Your task to perform on an android device: Toggle the flashlight Image 0: 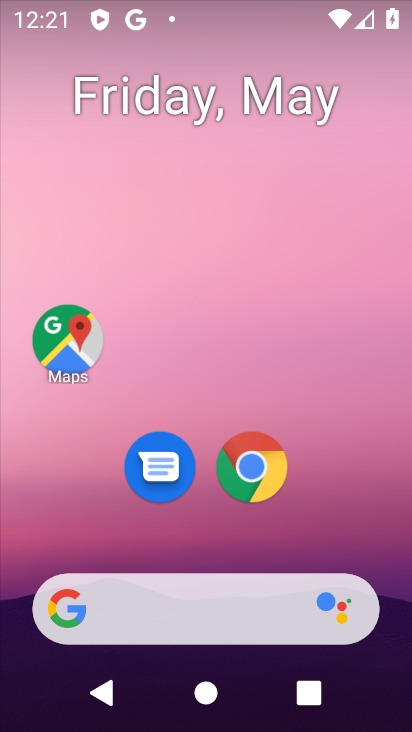
Step 0: drag from (340, 518) to (293, 128)
Your task to perform on an android device: Toggle the flashlight Image 1: 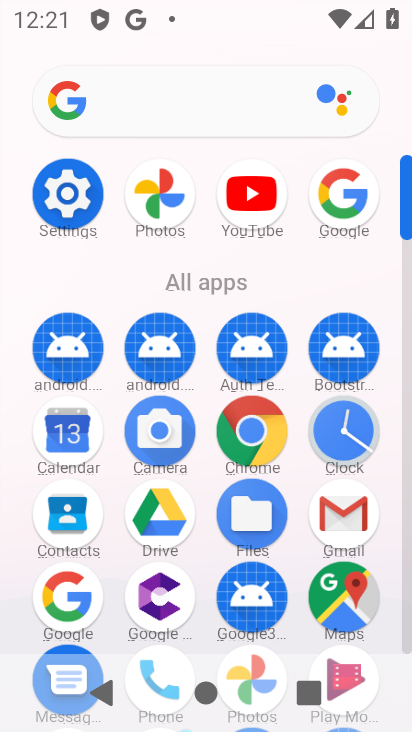
Step 1: click (69, 193)
Your task to perform on an android device: Toggle the flashlight Image 2: 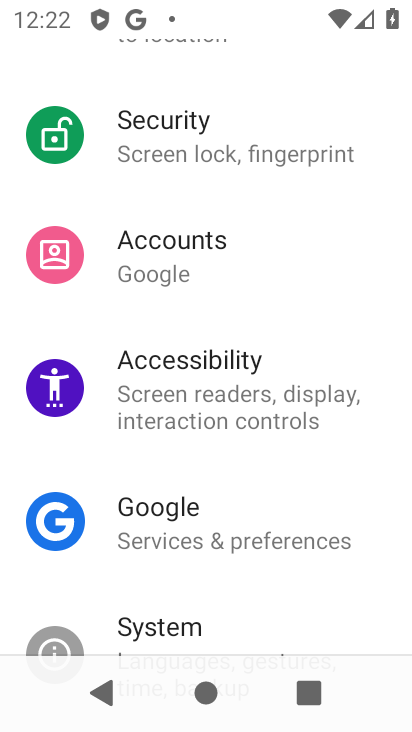
Step 2: drag from (259, 209) to (266, 397)
Your task to perform on an android device: Toggle the flashlight Image 3: 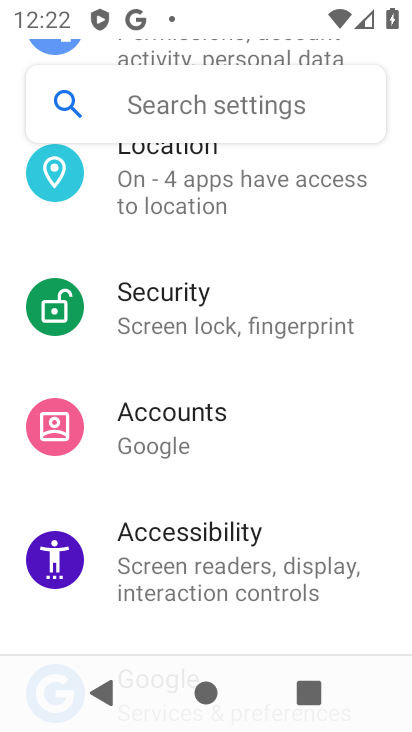
Step 3: drag from (232, 260) to (236, 442)
Your task to perform on an android device: Toggle the flashlight Image 4: 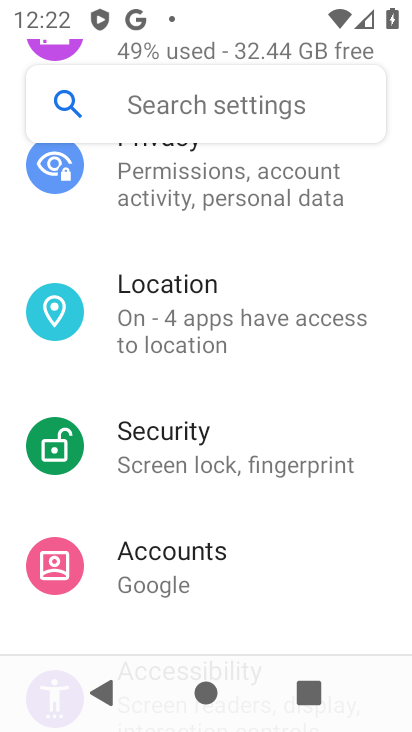
Step 4: drag from (211, 253) to (269, 408)
Your task to perform on an android device: Toggle the flashlight Image 5: 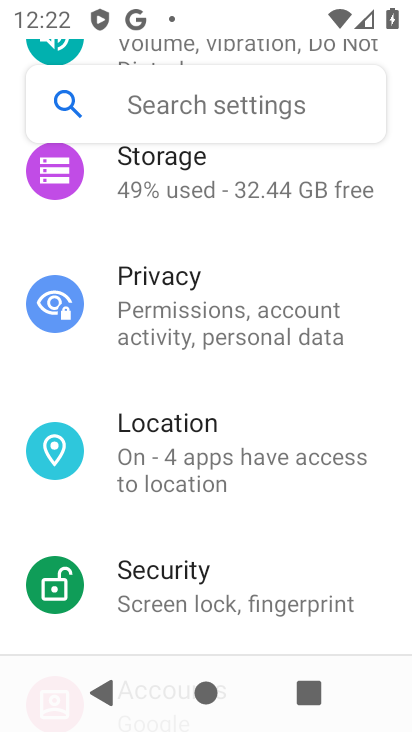
Step 5: drag from (252, 243) to (256, 408)
Your task to perform on an android device: Toggle the flashlight Image 6: 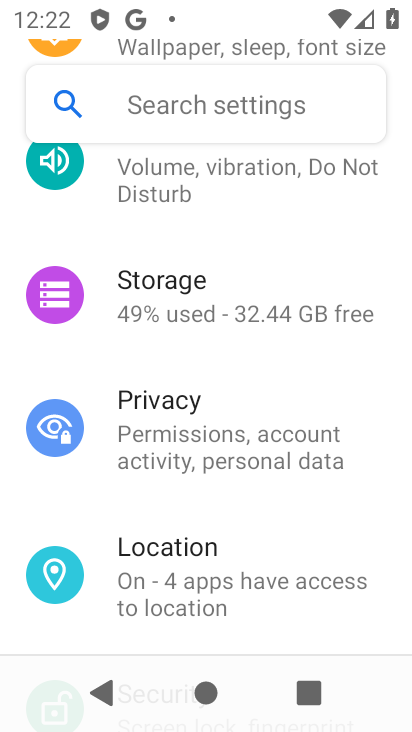
Step 6: drag from (210, 233) to (260, 386)
Your task to perform on an android device: Toggle the flashlight Image 7: 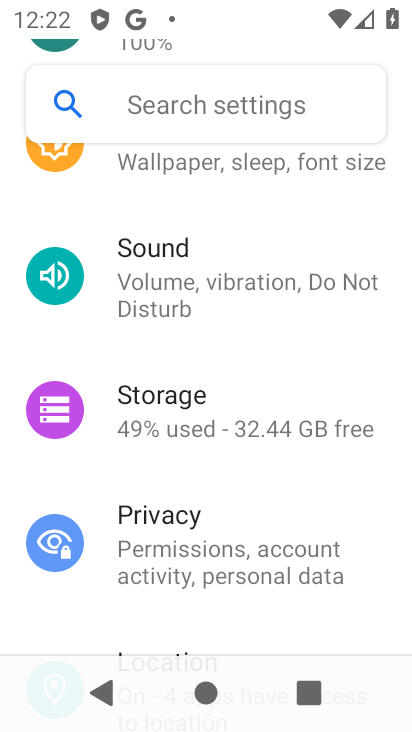
Step 7: click (212, 298)
Your task to perform on an android device: Toggle the flashlight Image 8: 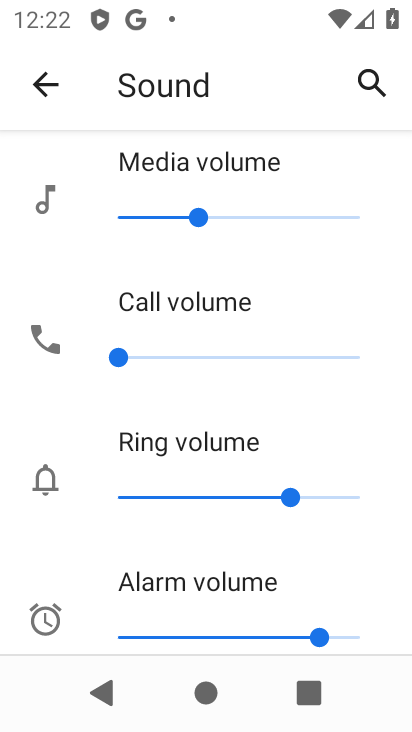
Step 8: press back button
Your task to perform on an android device: Toggle the flashlight Image 9: 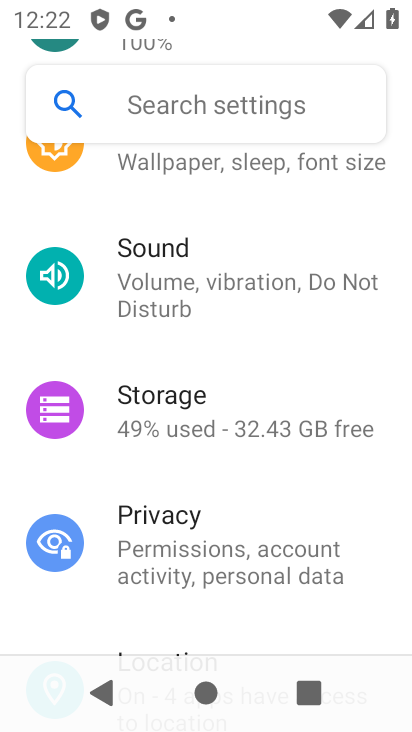
Step 9: drag from (209, 247) to (259, 370)
Your task to perform on an android device: Toggle the flashlight Image 10: 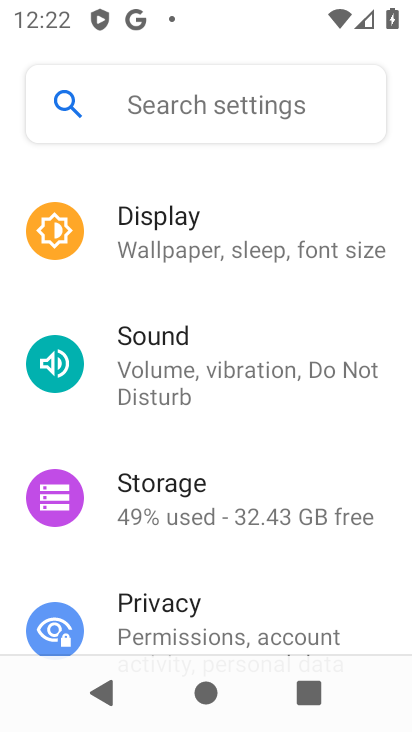
Step 10: drag from (263, 234) to (298, 383)
Your task to perform on an android device: Toggle the flashlight Image 11: 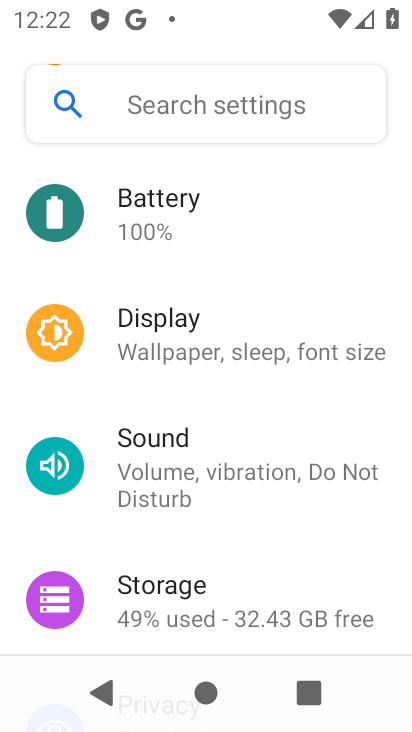
Step 11: drag from (230, 219) to (281, 349)
Your task to perform on an android device: Toggle the flashlight Image 12: 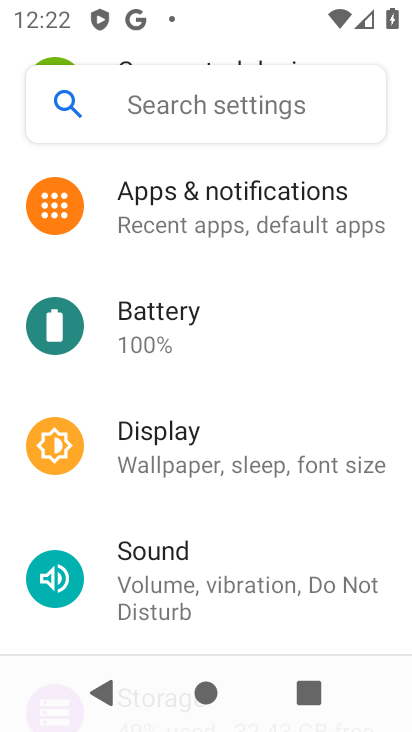
Step 12: click (203, 322)
Your task to perform on an android device: Toggle the flashlight Image 13: 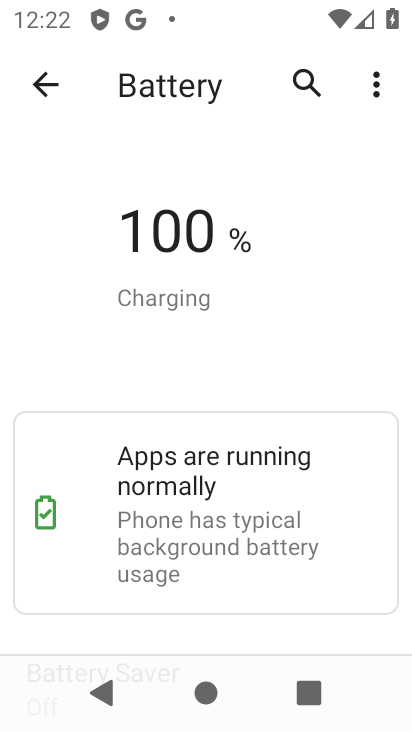
Step 13: press back button
Your task to perform on an android device: Toggle the flashlight Image 14: 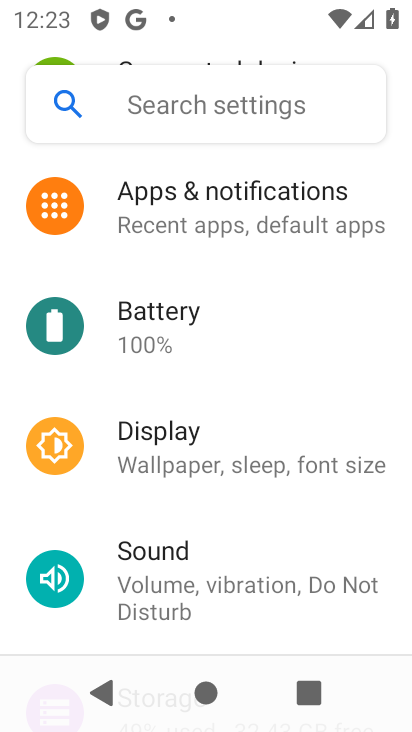
Step 14: drag from (268, 499) to (238, 368)
Your task to perform on an android device: Toggle the flashlight Image 15: 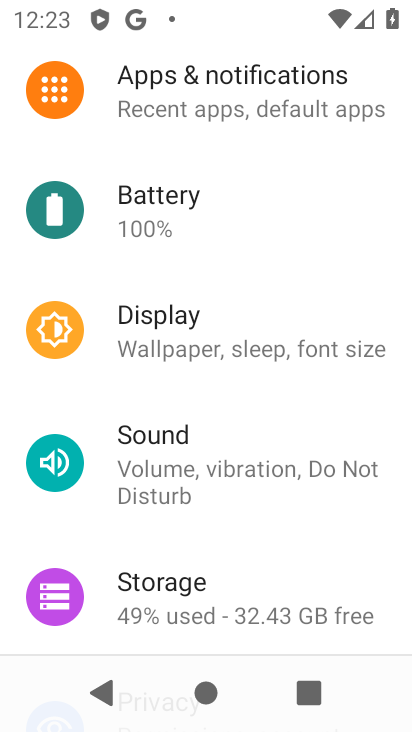
Step 15: click (169, 353)
Your task to perform on an android device: Toggle the flashlight Image 16: 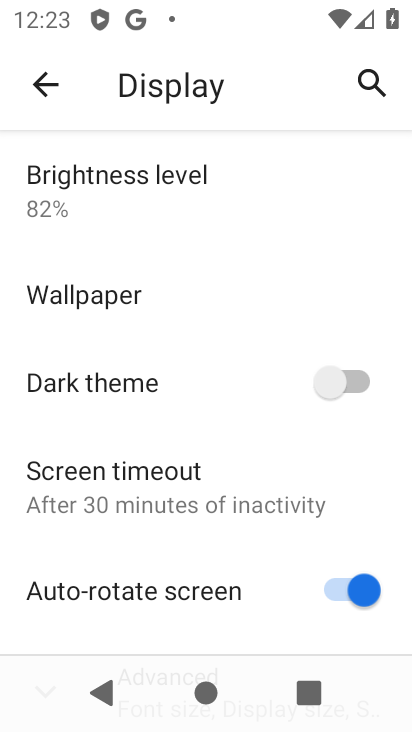
Step 16: task complete